Your task to perform on an android device: Open sound settings Image 0: 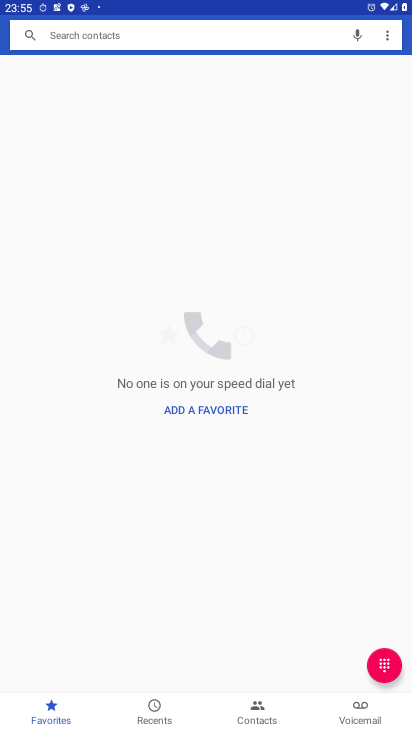
Step 0: press home button
Your task to perform on an android device: Open sound settings Image 1: 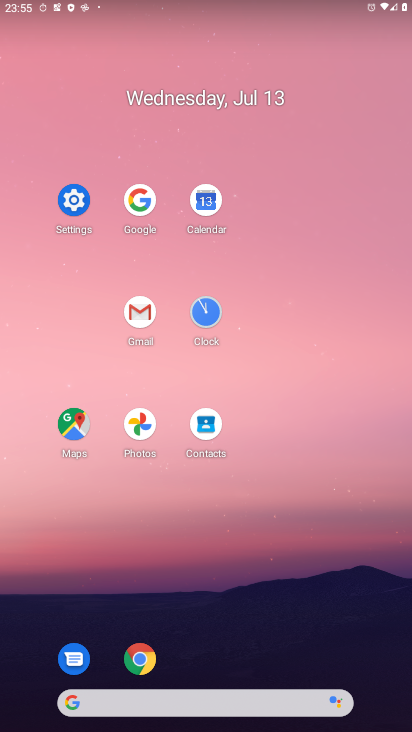
Step 1: click (82, 192)
Your task to perform on an android device: Open sound settings Image 2: 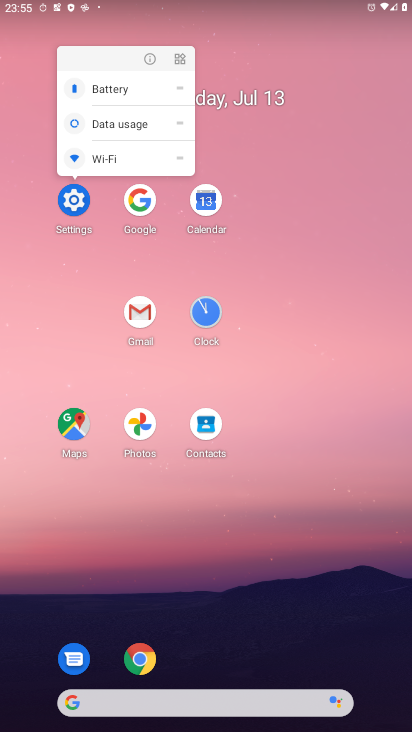
Step 2: click (87, 193)
Your task to perform on an android device: Open sound settings Image 3: 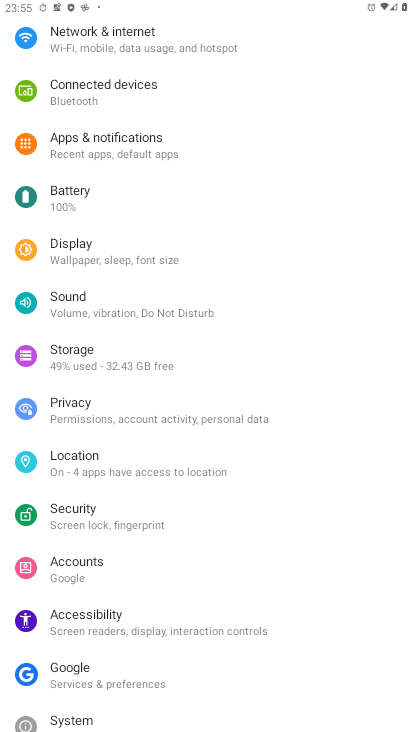
Step 3: click (169, 294)
Your task to perform on an android device: Open sound settings Image 4: 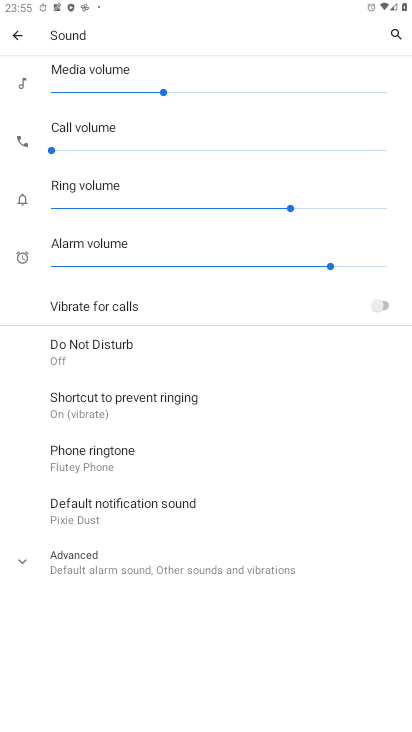
Step 4: task complete